Your task to perform on an android device: delete browsing data in the chrome app Image 0: 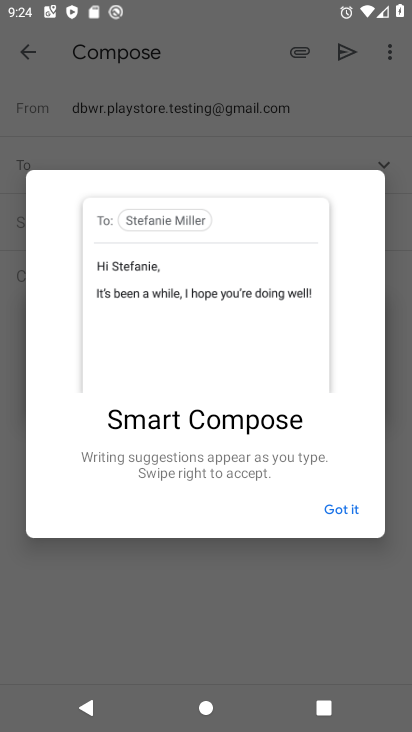
Step 0: press home button
Your task to perform on an android device: delete browsing data in the chrome app Image 1: 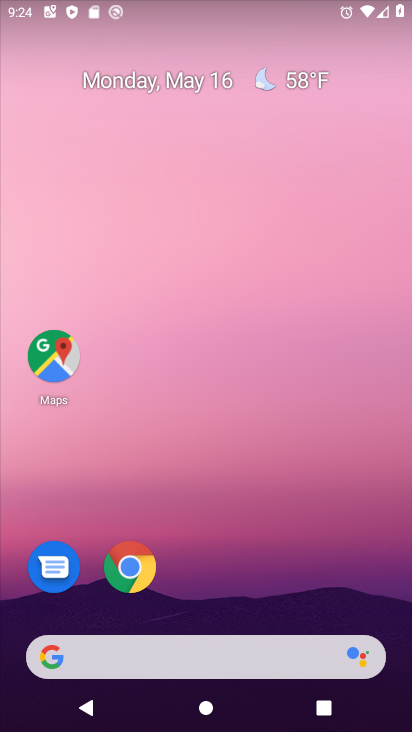
Step 1: drag from (265, 582) to (284, 162)
Your task to perform on an android device: delete browsing data in the chrome app Image 2: 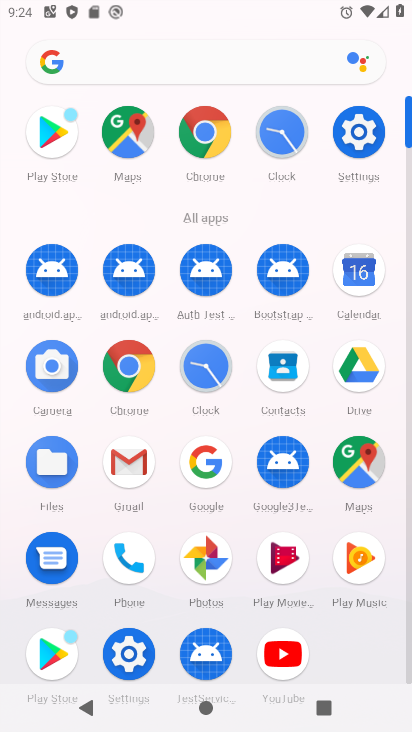
Step 2: click (124, 363)
Your task to perform on an android device: delete browsing data in the chrome app Image 3: 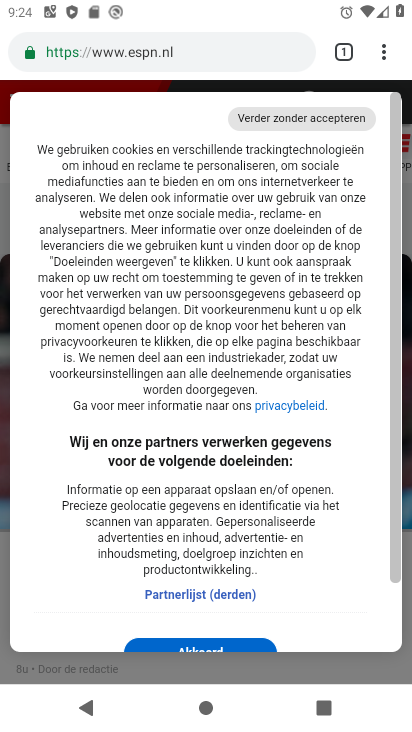
Step 3: click (378, 51)
Your task to perform on an android device: delete browsing data in the chrome app Image 4: 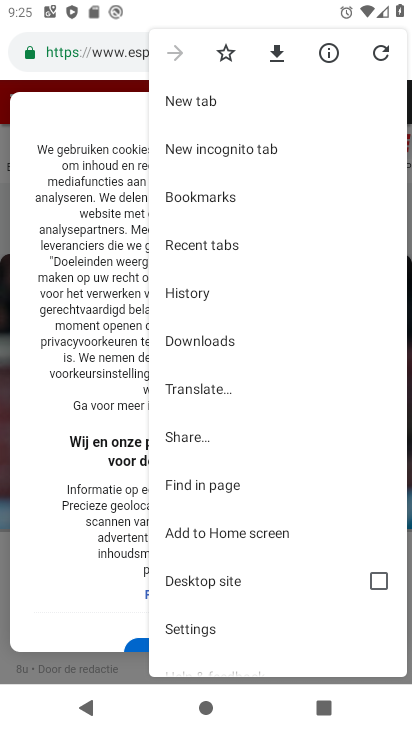
Step 4: click (209, 286)
Your task to perform on an android device: delete browsing data in the chrome app Image 5: 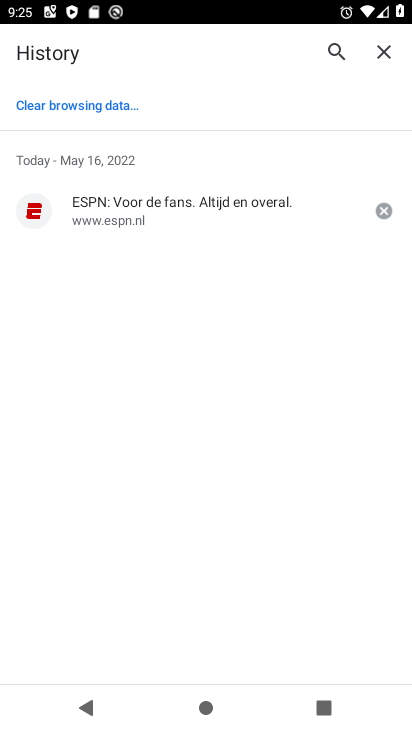
Step 5: click (87, 95)
Your task to perform on an android device: delete browsing data in the chrome app Image 6: 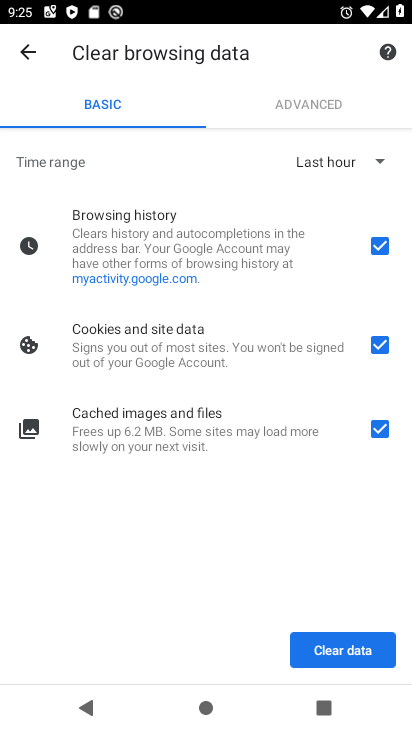
Step 6: click (360, 633)
Your task to perform on an android device: delete browsing data in the chrome app Image 7: 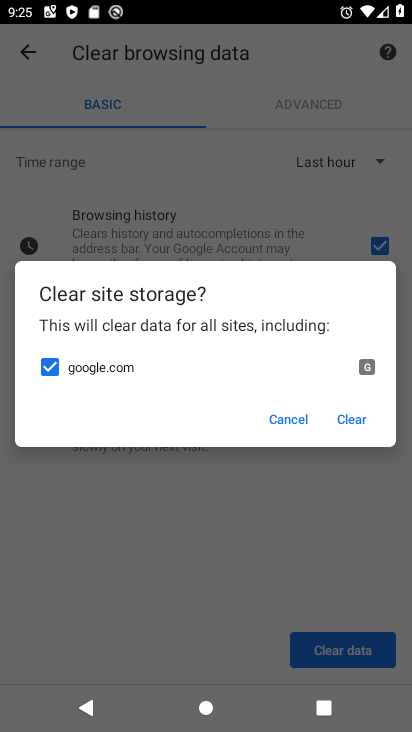
Step 7: click (345, 416)
Your task to perform on an android device: delete browsing data in the chrome app Image 8: 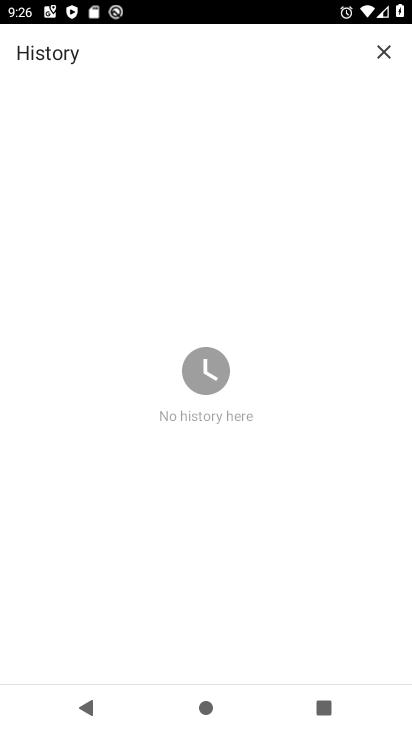
Step 8: task complete